Your task to perform on an android device: read, delete, or share a saved page in the chrome app Image 0: 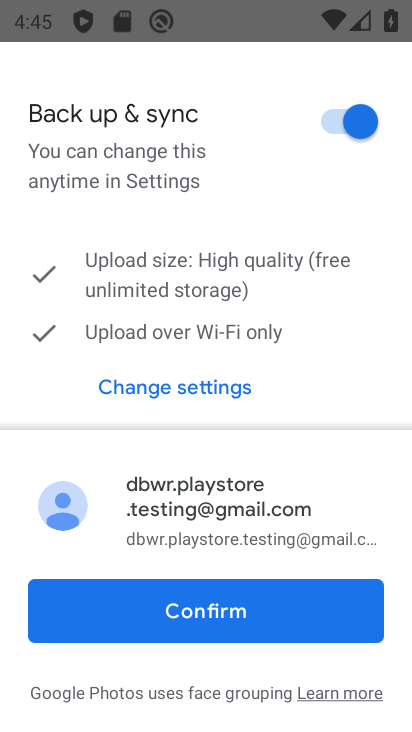
Step 0: click (198, 602)
Your task to perform on an android device: read, delete, or share a saved page in the chrome app Image 1: 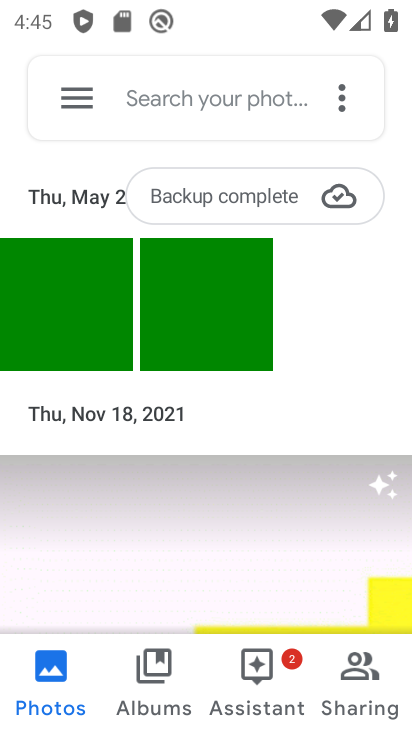
Step 1: press home button
Your task to perform on an android device: read, delete, or share a saved page in the chrome app Image 2: 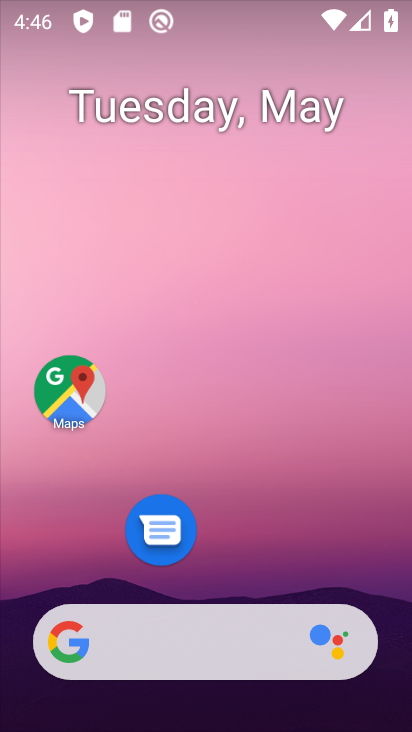
Step 2: drag from (338, 542) to (234, 70)
Your task to perform on an android device: read, delete, or share a saved page in the chrome app Image 3: 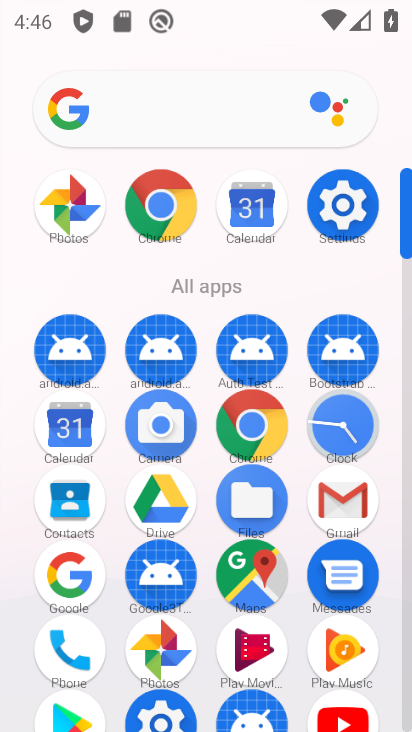
Step 3: click (270, 433)
Your task to perform on an android device: read, delete, or share a saved page in the chrome app Image 4: 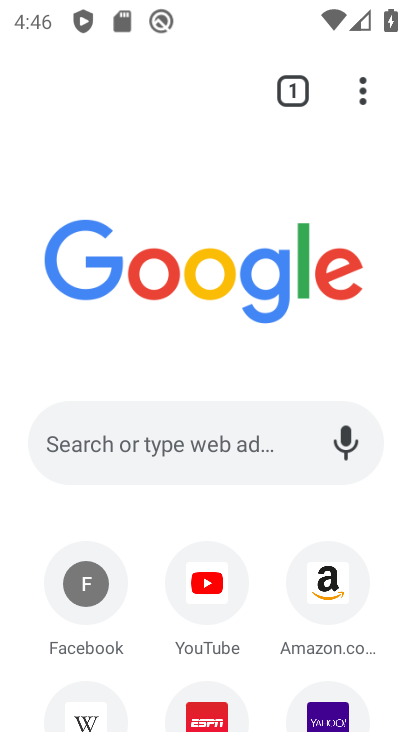
Step 4: click (360, 83)
Your task to perform on an android device: read, delete, or share a saved page in the chrome app Image 5: 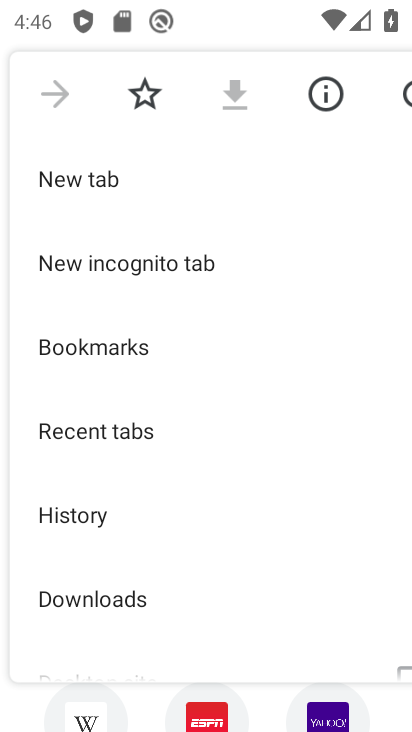
Step 5: drag from (131, 610) to (218, 36)
Your task to perform on an android device: read, delete, or share a saved page in the chrome app Image 6: 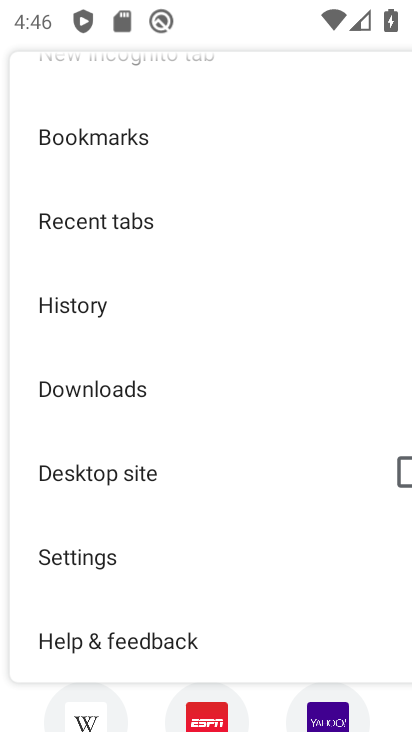
Step 6: drag from (139, 21) to (83, 304)
Your task to perform on an android device: read, delete, or share a saved page in the chrome app Image 7: 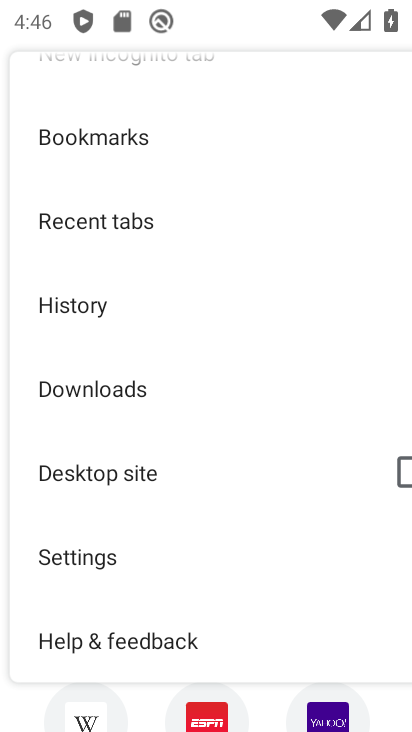
Step 7: click (115, 391)
Your task to perform on an android device: read, delete, or share a saved page in the chrome app Image 8: 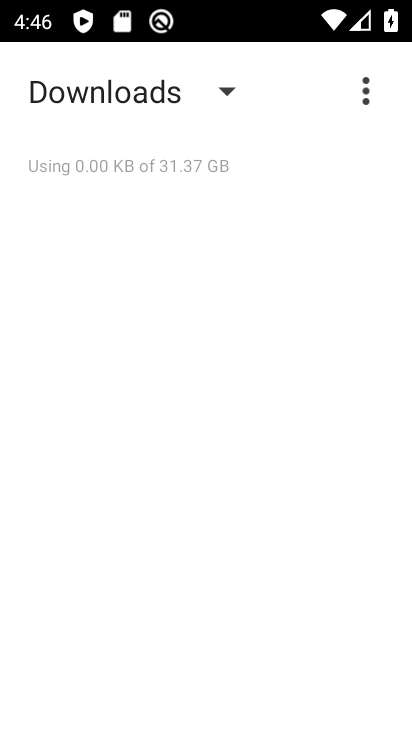
Step 8: click (202, 73)
Your task to perform on an android device: read, delete, or share a saved page in the chrome app Image 9: 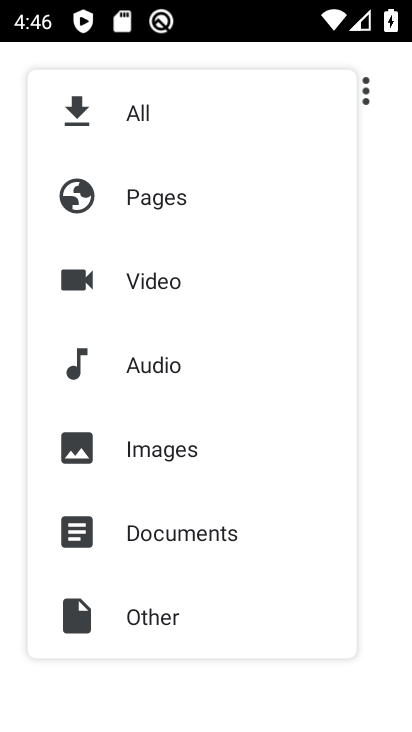
Step 9: click (130, 182)
Your task to perform on an android device: read, delete, or share a saved page in the chrome app Image 10: 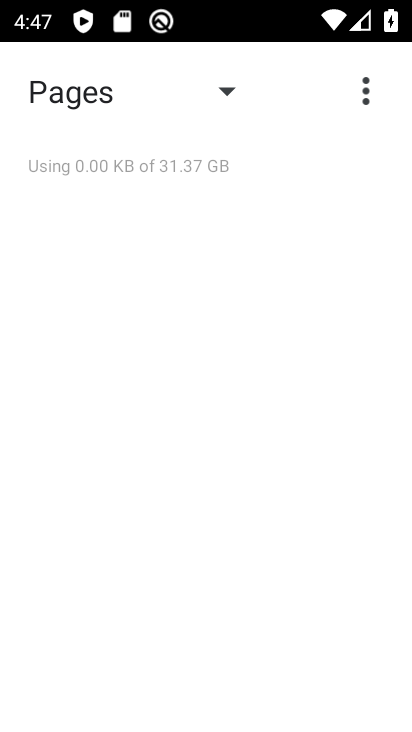
Step 10: task complete